Your task to perform on an android device: Go to CNN.com Image 0: 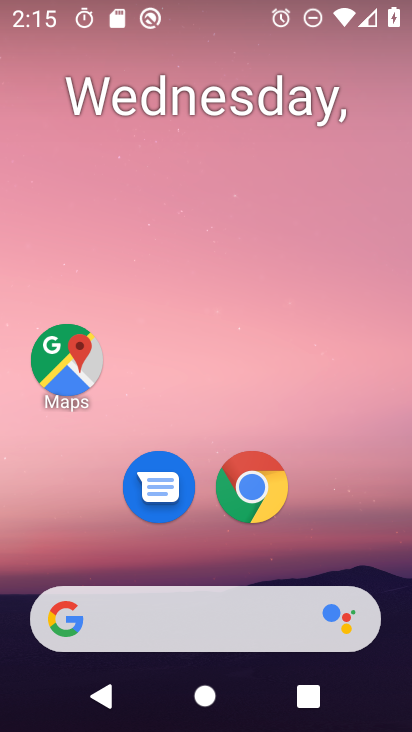
Step 0: click (250, 490)
Your task to perform on an android device: Go to CNN.com Image 1: 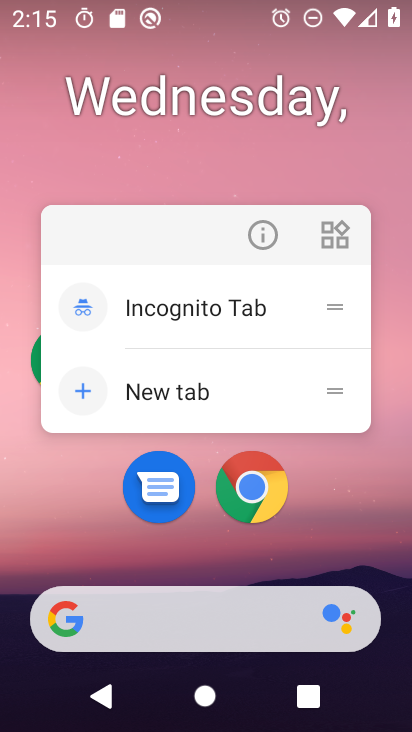
Step 1: click (267, 489)
Your task to perform on an android device: Go to CNN.com Image 2: 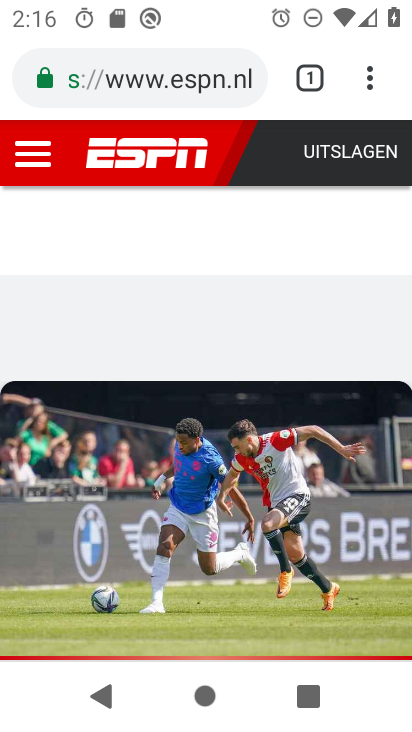
Step 2: click (320, 74)
Your task to perform on an android device: Go to CNN.com Image 3: 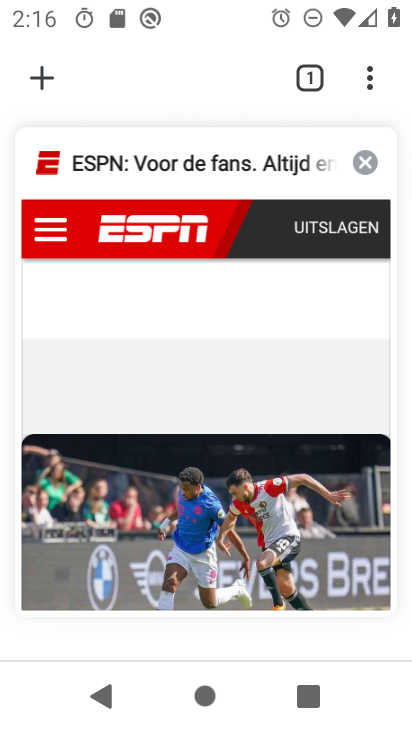
Step 3: click (32, 82)
Your task to perform on an android device: Go to CNN.com Image 4: 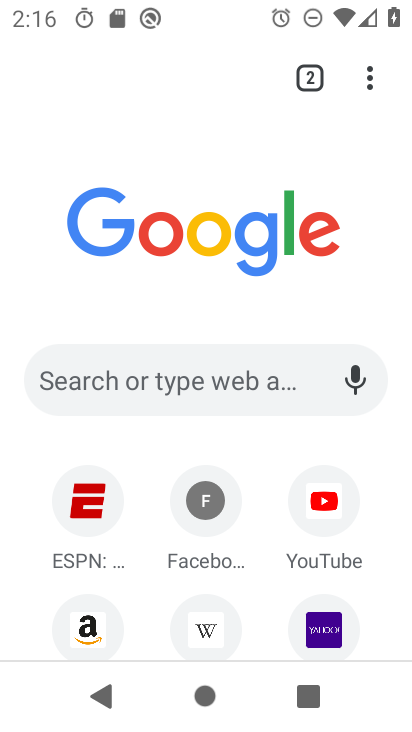
Step 4: drag from (201, 593) to (262, 514)
Your task to perform on an android device: Go to CNN.com Image 5: 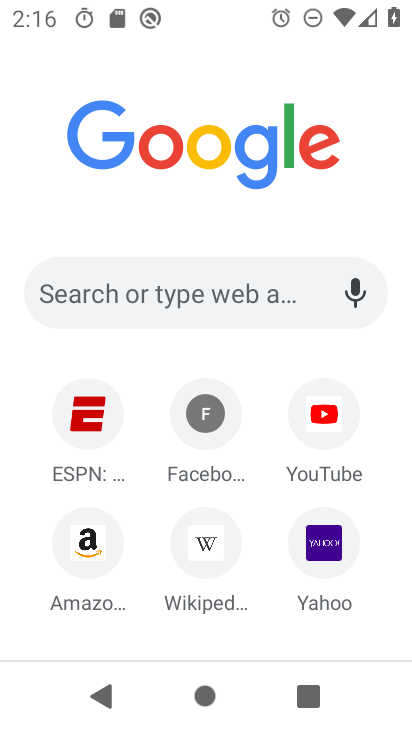
Step 5: click (166, 313)
Your task to perform on an android device: Go to CNN.com Image 6: 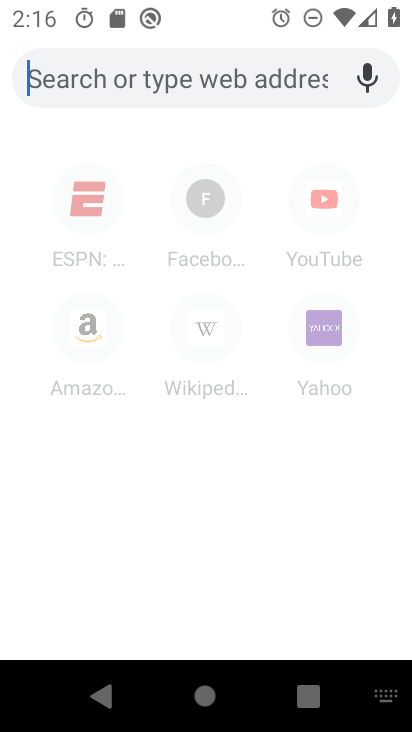
Step 6: type "cnn.com"
Your task to perform on an android device: Go to CNN.com Image 7: 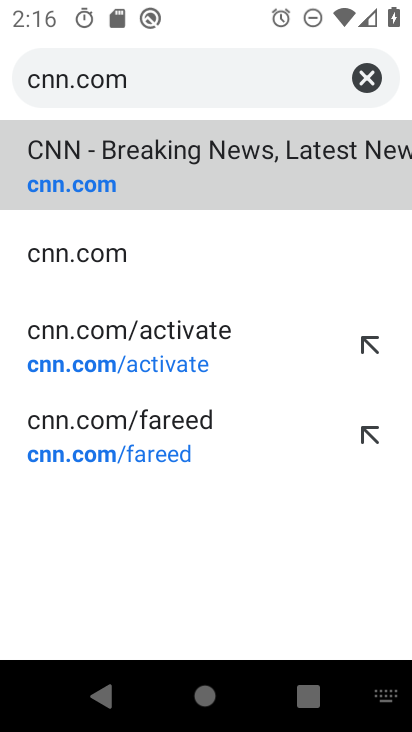
Step 7: click (164, 182)
Your task to perform on an android device: Go to CNN.com Image 8: 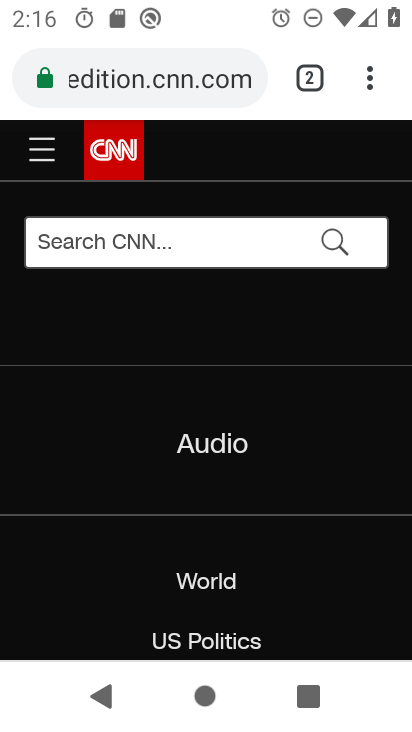
Step 8: task complete